Your task to perform on an android device: check battery use Image 0: 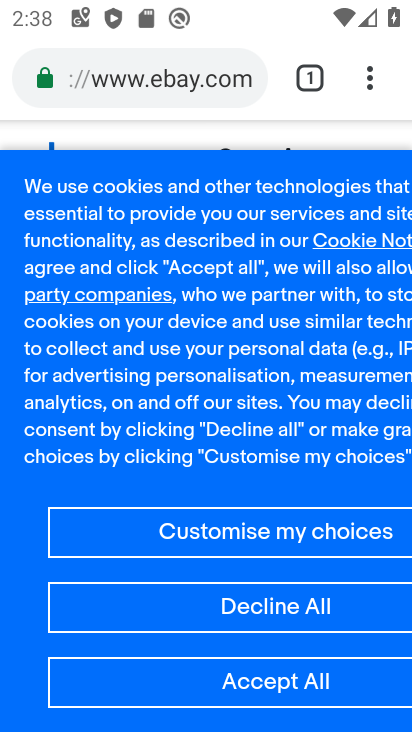
Step 0: press home button
Your task to perform on an android device: check battery use Image 1: 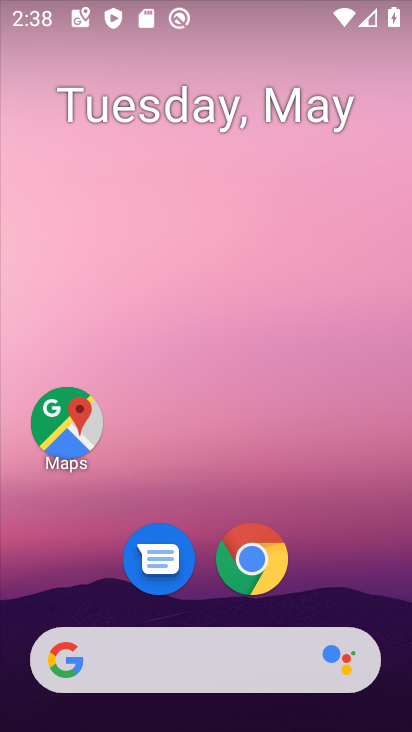
Step 1: drag from (179, 659) to (315, 26)
Your task to perform on an android device: check battery use Image 2: 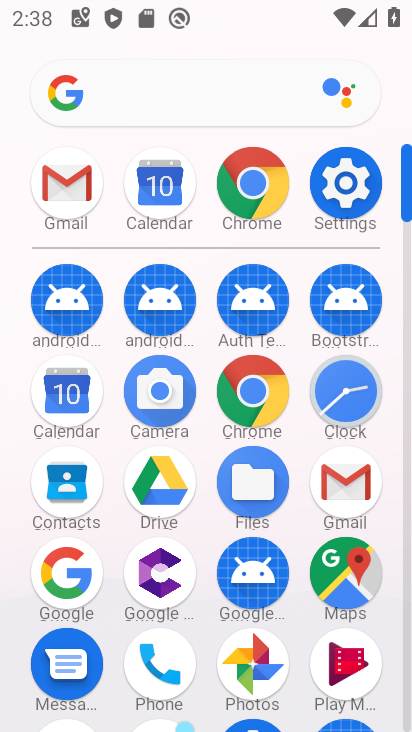
Step 2: click (349, 192)
Your task to perform on an android device: check battery use Image 3: 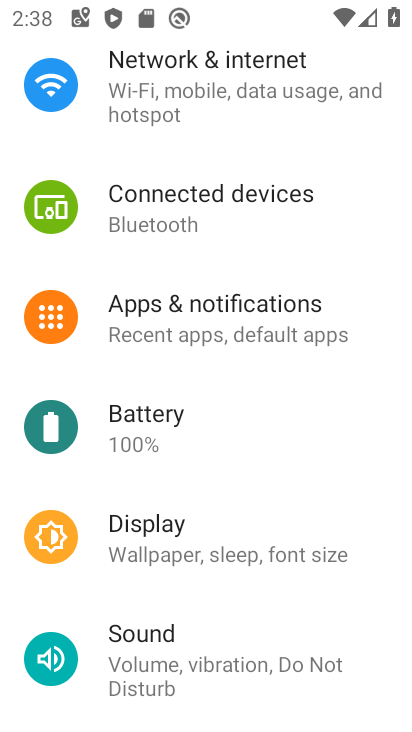
Step 3: click (159, 421)
Your task to perform on an android device: check battery use Image 4: 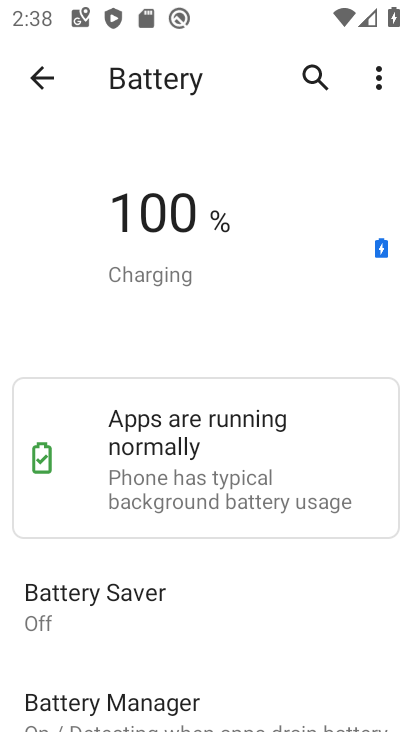
Step 4: click (377, 72)
Your task to perform on an android device: check battery use Image 5: 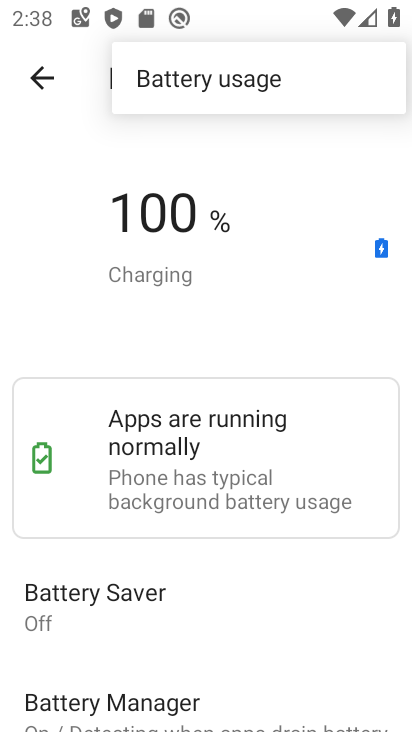
Step 5: click (210, 83)
Your task to perform on an android device: check battery use Image 6: 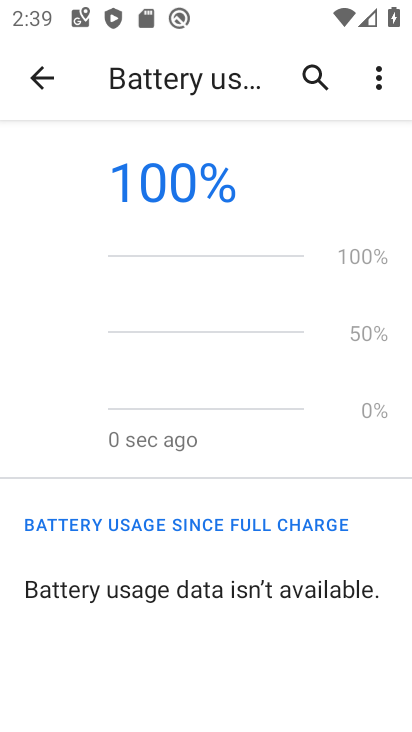
Step 6: task complete